Your task to perform on an android device: Go to Maps Image 0: 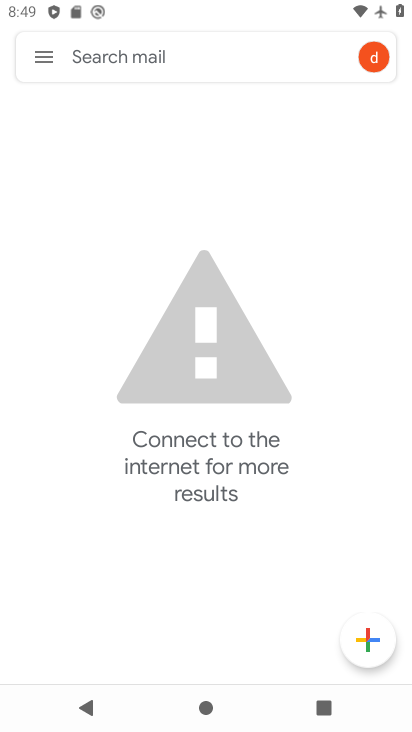
Step 0: press home button
Your task to perform on an android device: Go to Maps Image 1: 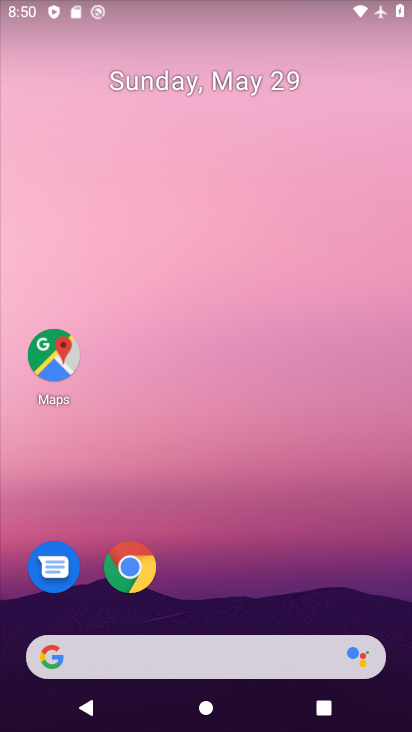
Step 1: click (54, 353)
Your task to perform on an android device: Go to Maps Image 2: 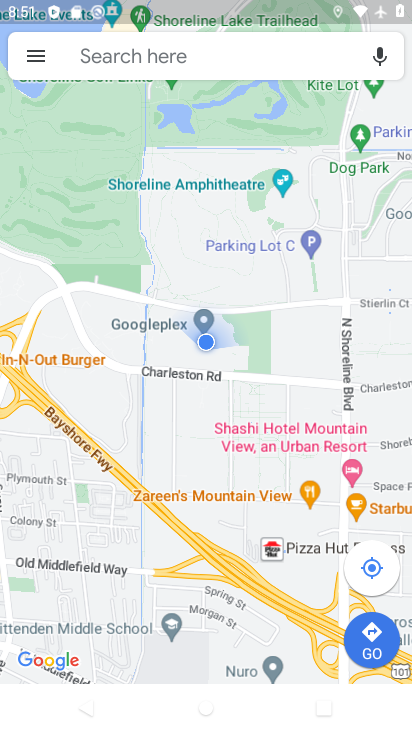
Step 2: task complete